Your task to perform on an android device: change text size in settings app Image 0: 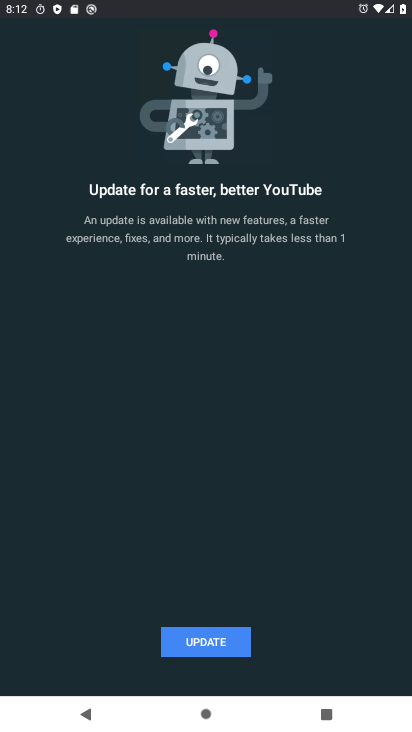
Step 0: press back button
Your task to perform on an android device: change text size in settings app Image 1: 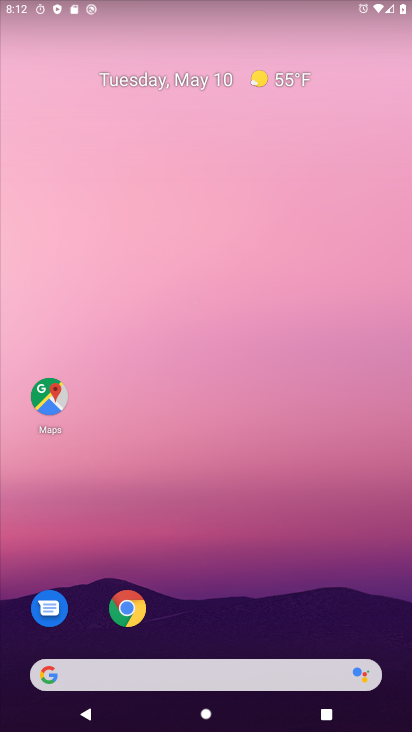
Step 1: drag from (267, 602) to (216, 14)
Your task to perform on an android device: change text size in settings app Image 2: 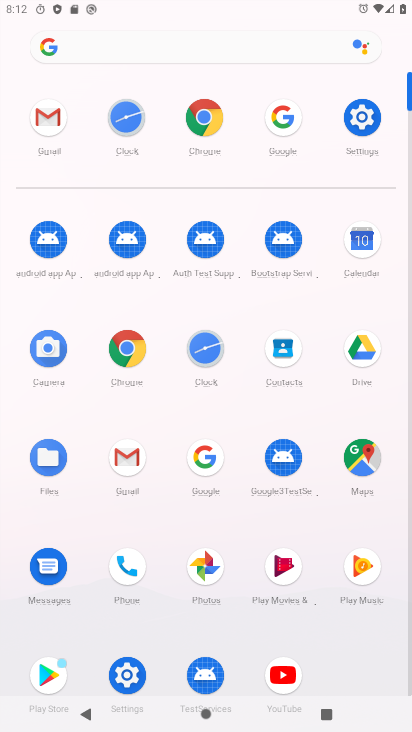
Step 2: click (363, 117)
Your task to perform on an android device: change text size in settings app Image 3: 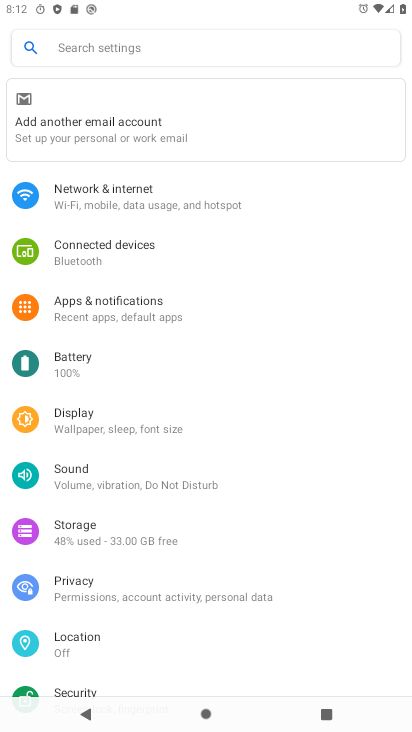
Step 3: drag from (135, 376) to (160, 291)
Your task to perform on an android device: change text size in settings app Image 4: 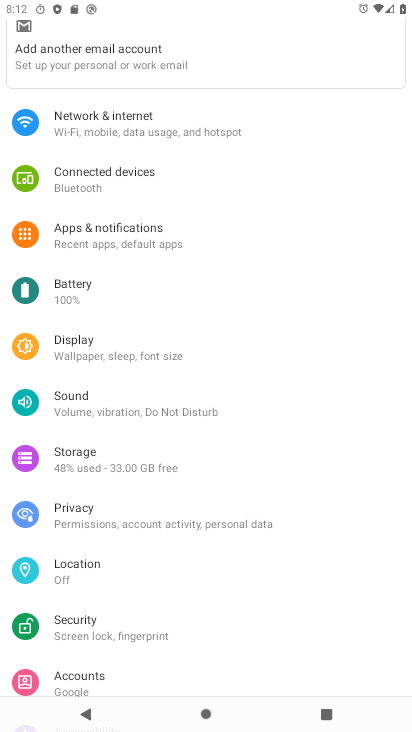
Step 4: drag from (122, 433) to (158, 341)
Your task to perform on an android device: change text size in settings app Image 5: 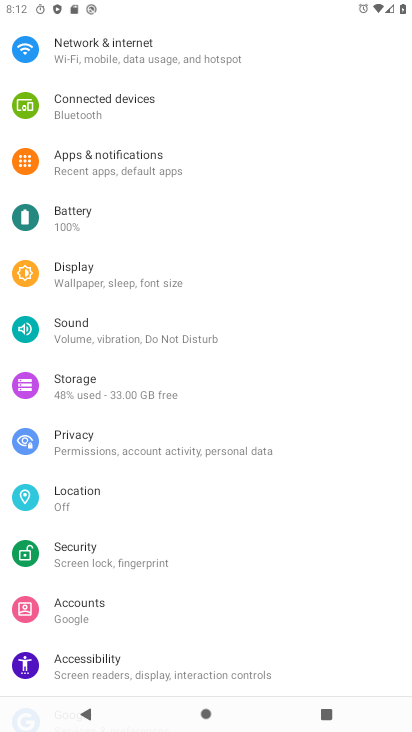
Step 5: drag from (91, 475) to (131, 376)
Your task to perform on an android device: change text size in settings app Image 6: 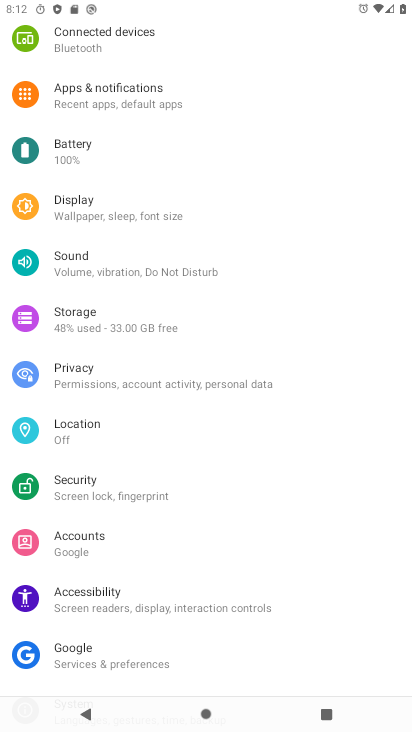
Step 6: drag from (103, 463) to (159, 378)
Your task to perform on an android device: change text size in settings app Image 7: 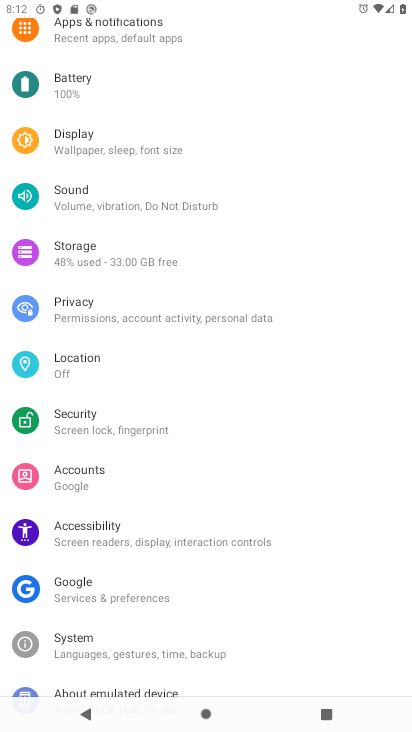
Step 7: drag from (124, 485) to (159, 412)
Your task to perform on an android device: change text size in settings app Image 8: 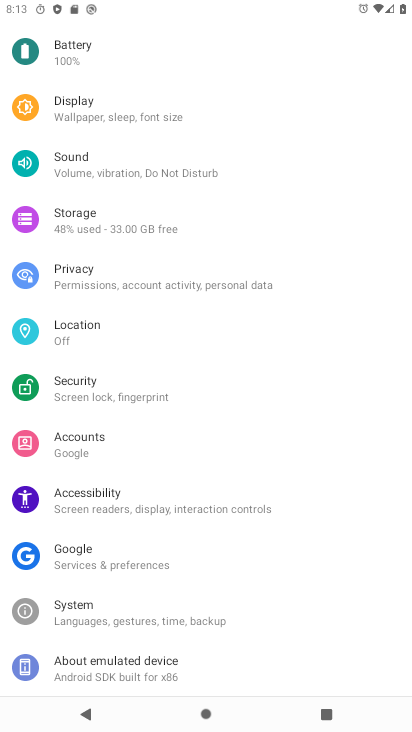
Step 8: click (77, 509)
Your task to perform on an android device: change text size in settings app Image 9: 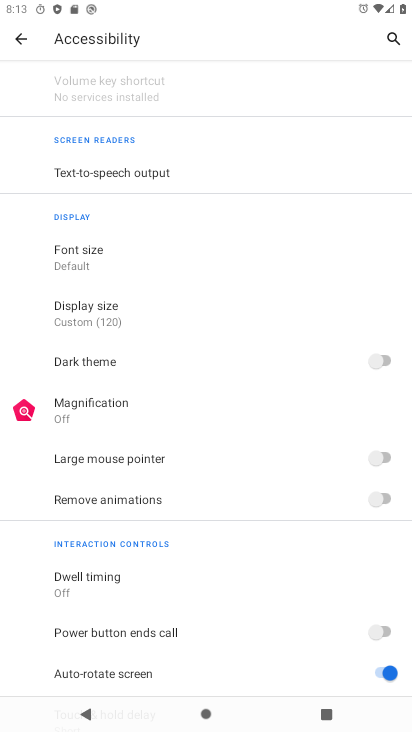
Step 9: click (64, 254)
Your task to perform on an android device: change text size in settings app Image 10: 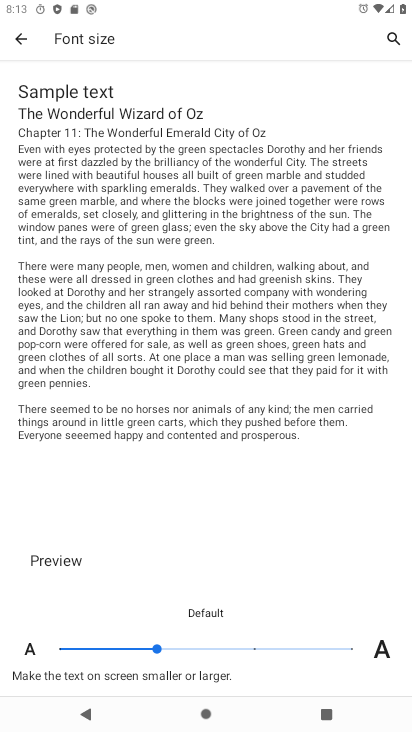
Step 10: click (249, 648)
Your task to perform on an android device: change text size in settings app Image 11: 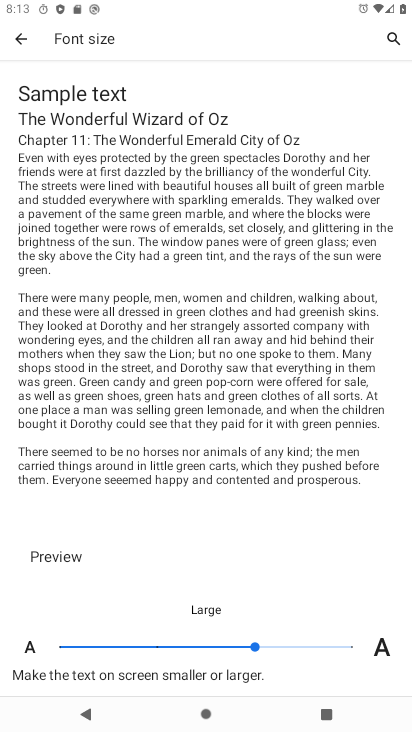
Step 11: task complete